Your task to perform on an android device: turn off notifications in google photos Image 0: 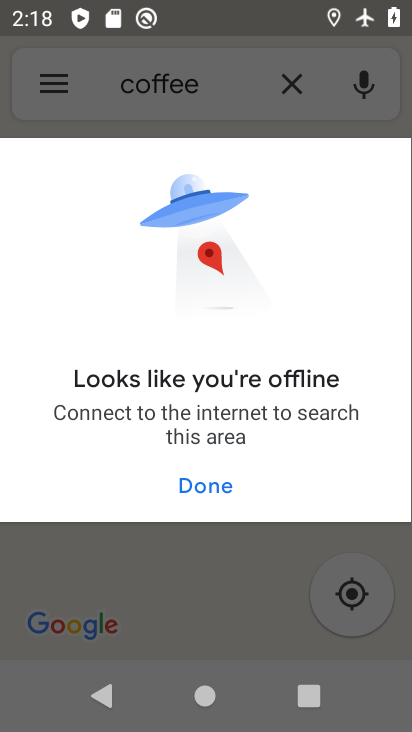
Step 0: click (204, 235)
Your task to perform on an android device: turn off notifications in google photos Image 1: 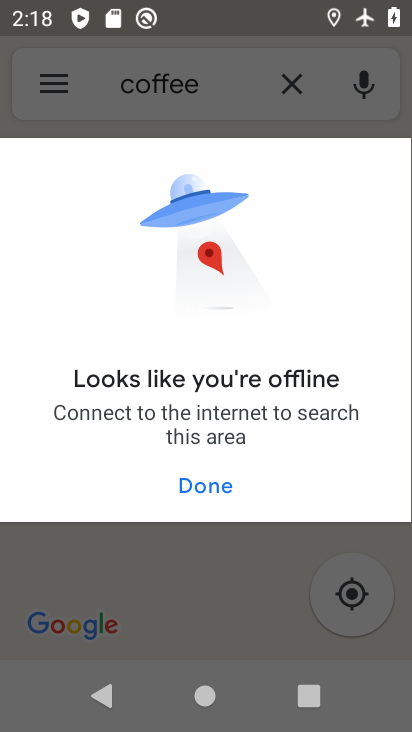
Step 1: task complete